Your task to perform on an android device: Clear the cart on walmart. Search for usb-b on walmart, select the first entry, and add it to the cart. Image 0: 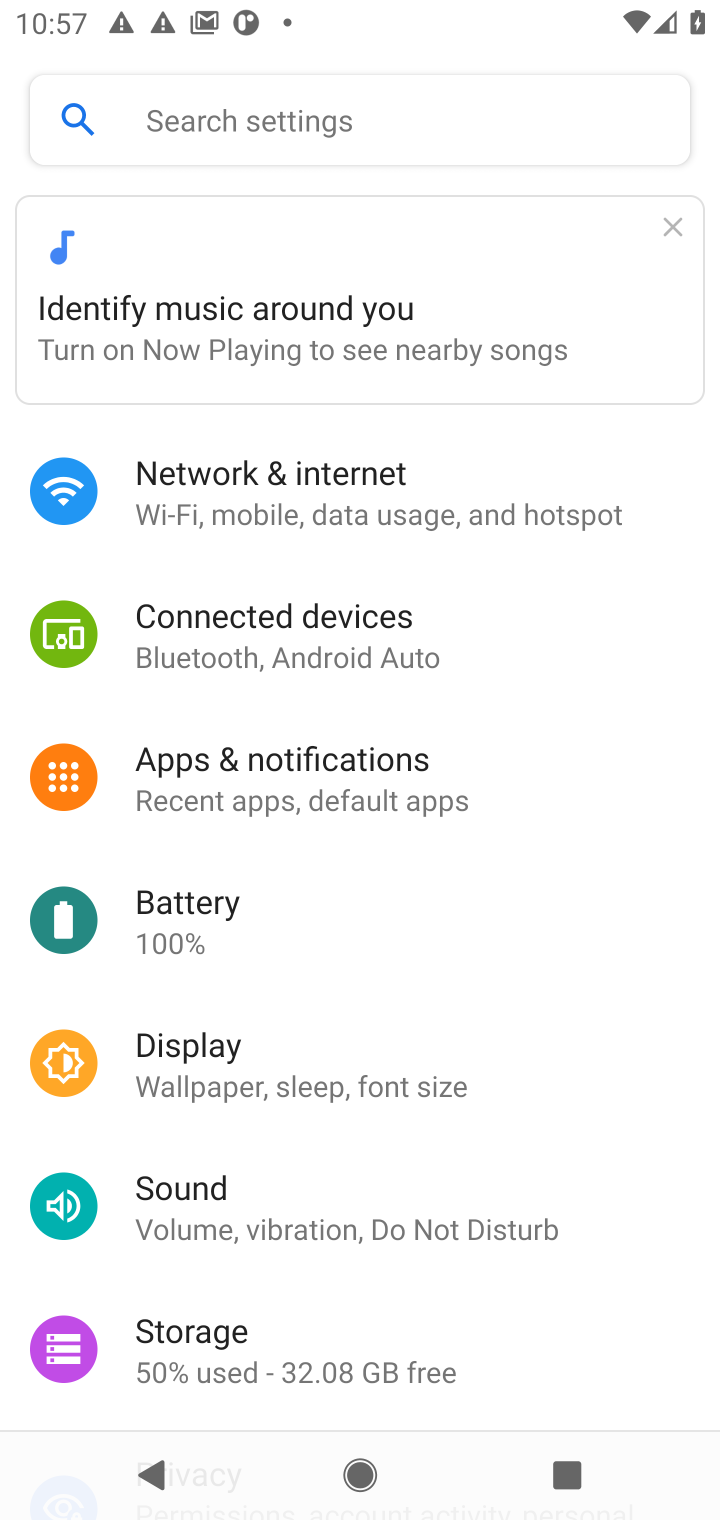
Step 0: press home button
Your task to perform on an android device: Clear the cart on walmart. Search for usb-b on walmart, select the first entry, and add it to the cart. Image 1: 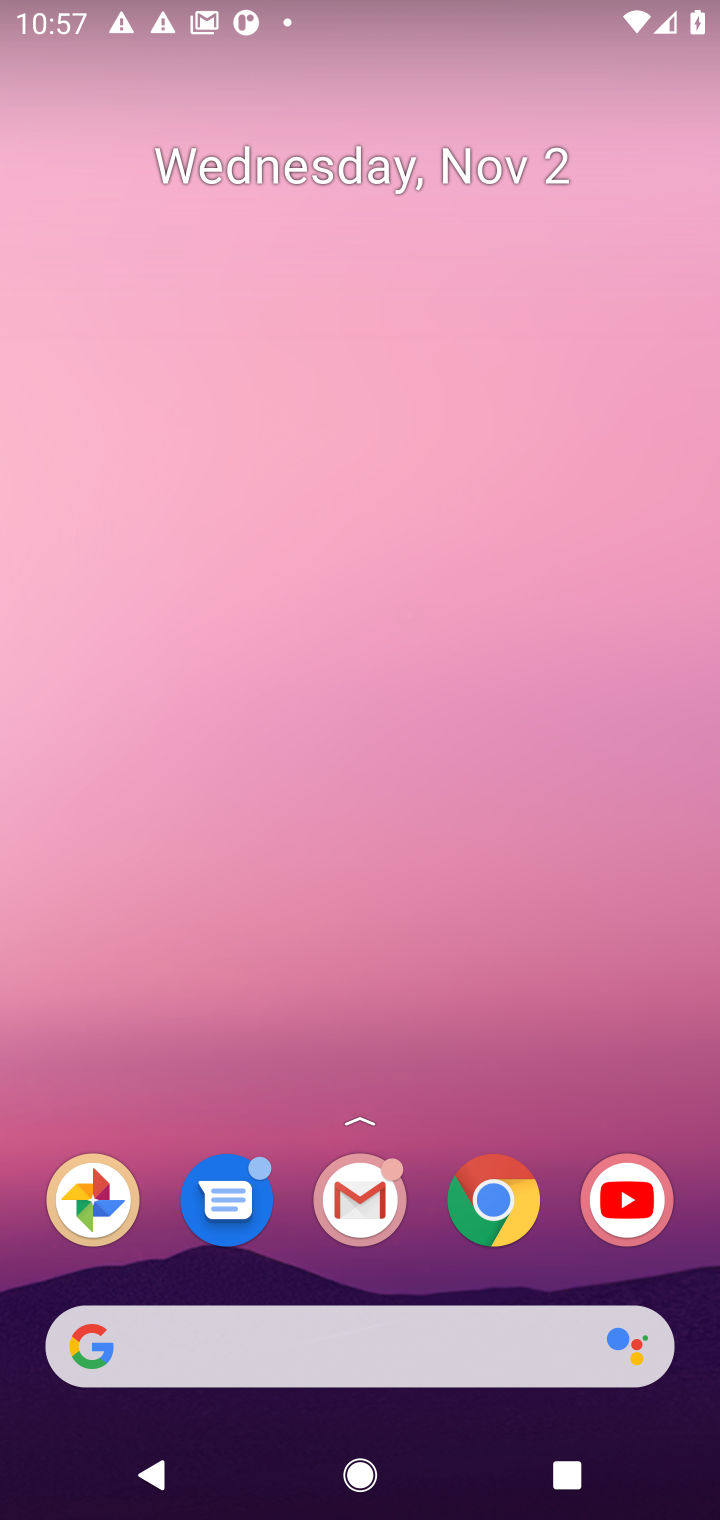
Step 1: click (496, 1179)
Your task to perform on an android device: Clear the cart on walmart. Search for usb-b on walmart, select the first entry, and add it to the cart. Image 2: 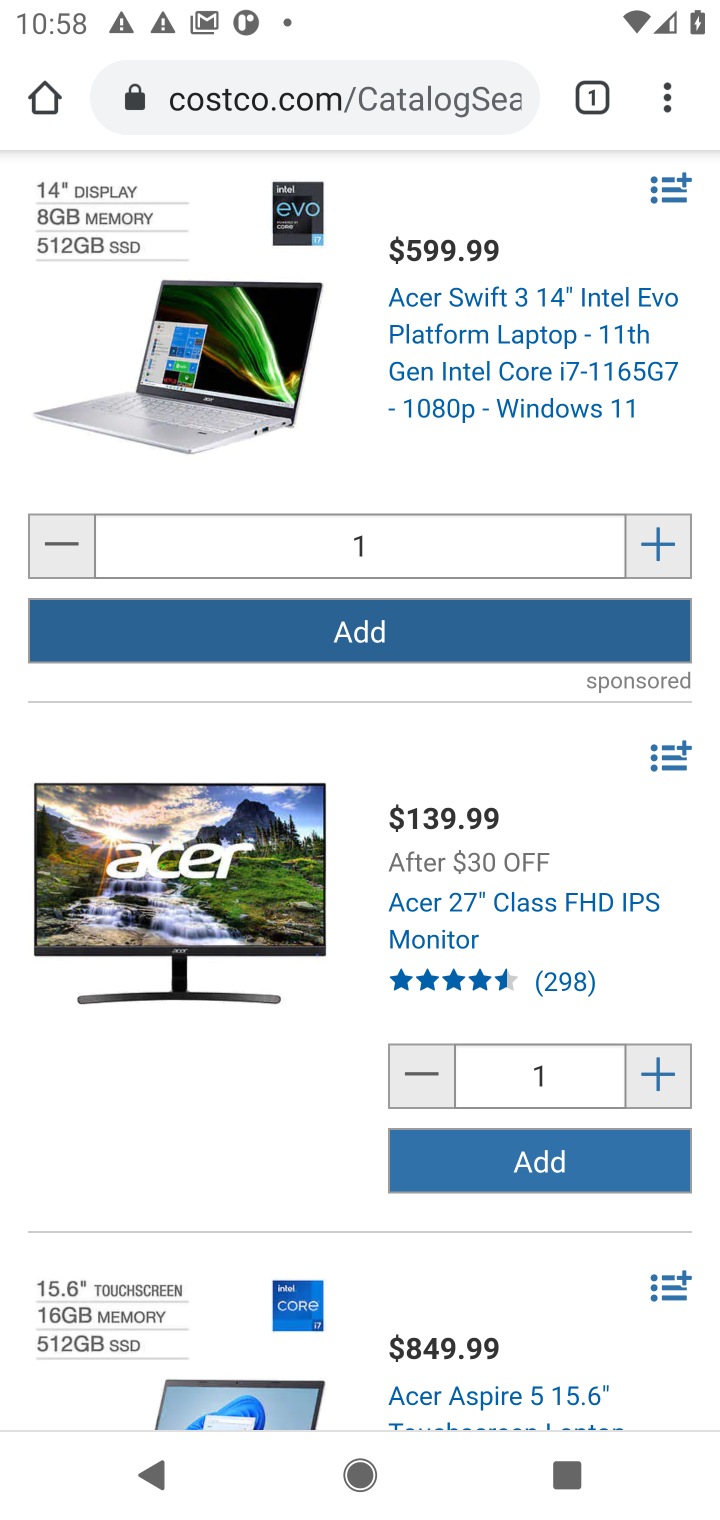
Step 2: click (478, 100)
Your task to perform on an android device: Clear the cart on walmart. Search for usb-b on walmart, select the first entry, and add it to the cart. Image 3: 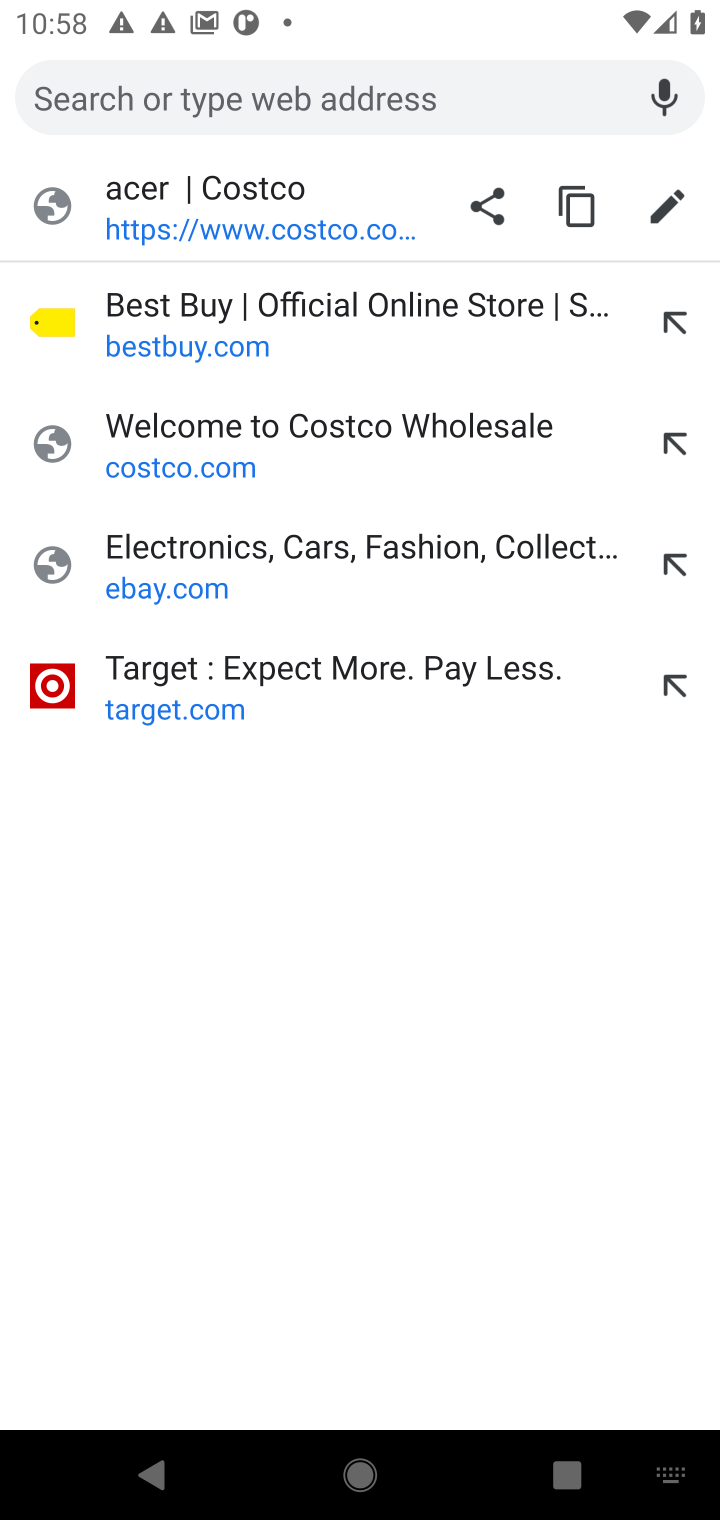
Step 3: type "walmart"
Your task to perform on an android device: Clear the cart on walmart. Search for usb-b on walmart, select the first entry, and add it to the cart. Image 4: 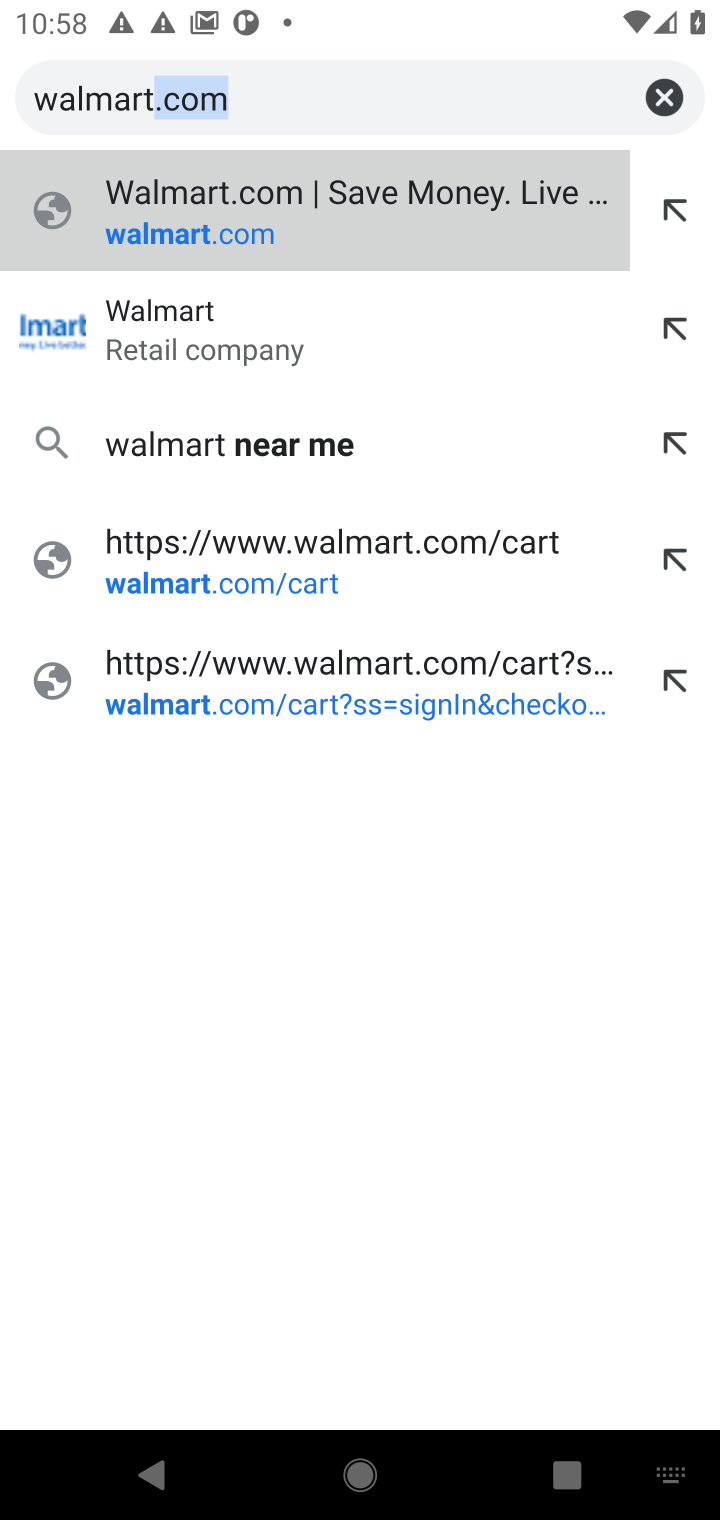
Step 4: press enter
Your task to perform on an android device: Clear the cart on walmart. Search for usb-b on walmart, select the first entry, and add it to the cart. Image 5: 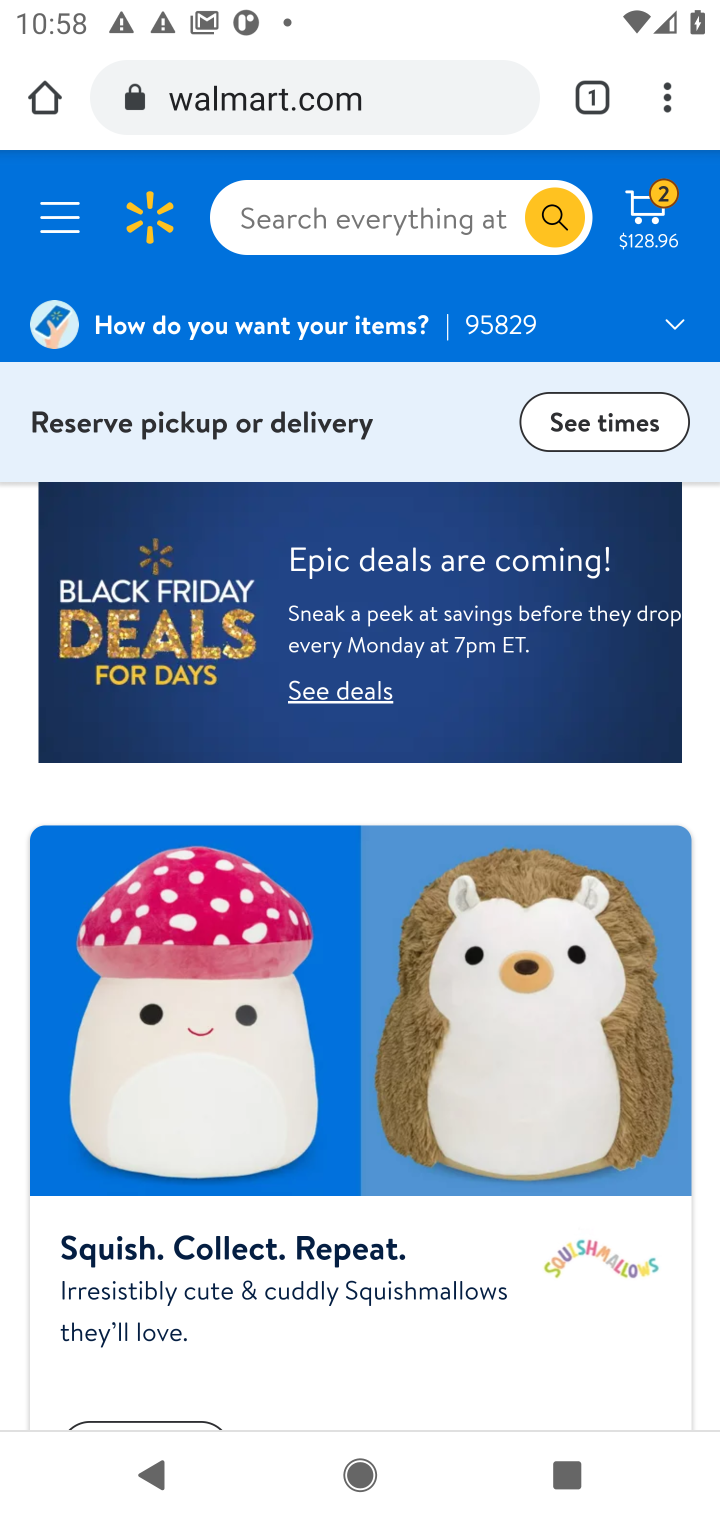
Step 5: click (644, 221)
Your task to perform on an android device: Clear the cart on walmart. Search for usb-b on walmart, select the first entry, and add it to the cart. Image 6: 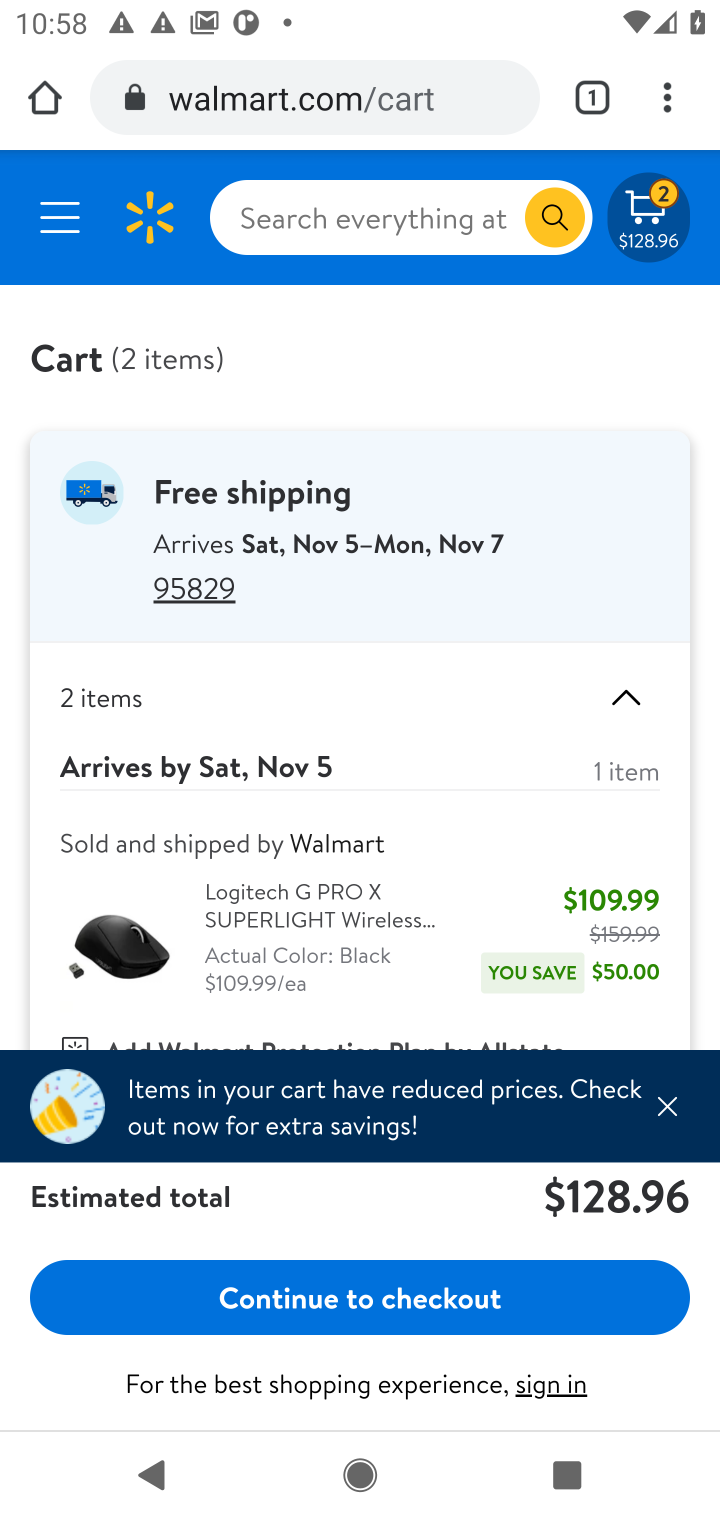
Step 6: drag from (515, 711) to (555, 334)
Your task to perform on an android device: Clear the cart on walmart. Search for usb-b on walmart, select the first entry, and add it to the cart. Image 7: 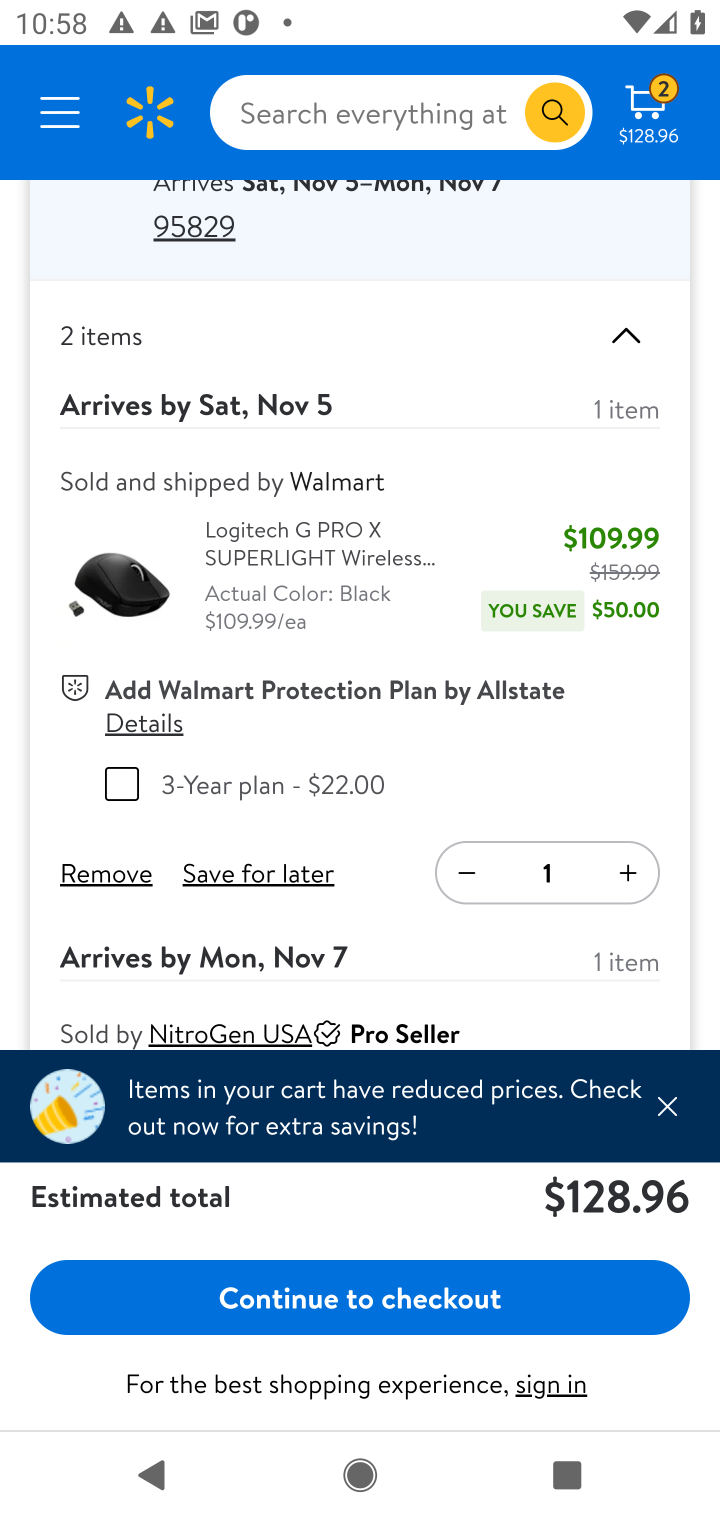
Step 7: click (114, 876)
Your task to perform on an android device: Clear the cart on walmart. Search for usb-b on walmart, select the first entry, and add it to the cart. Image 8: 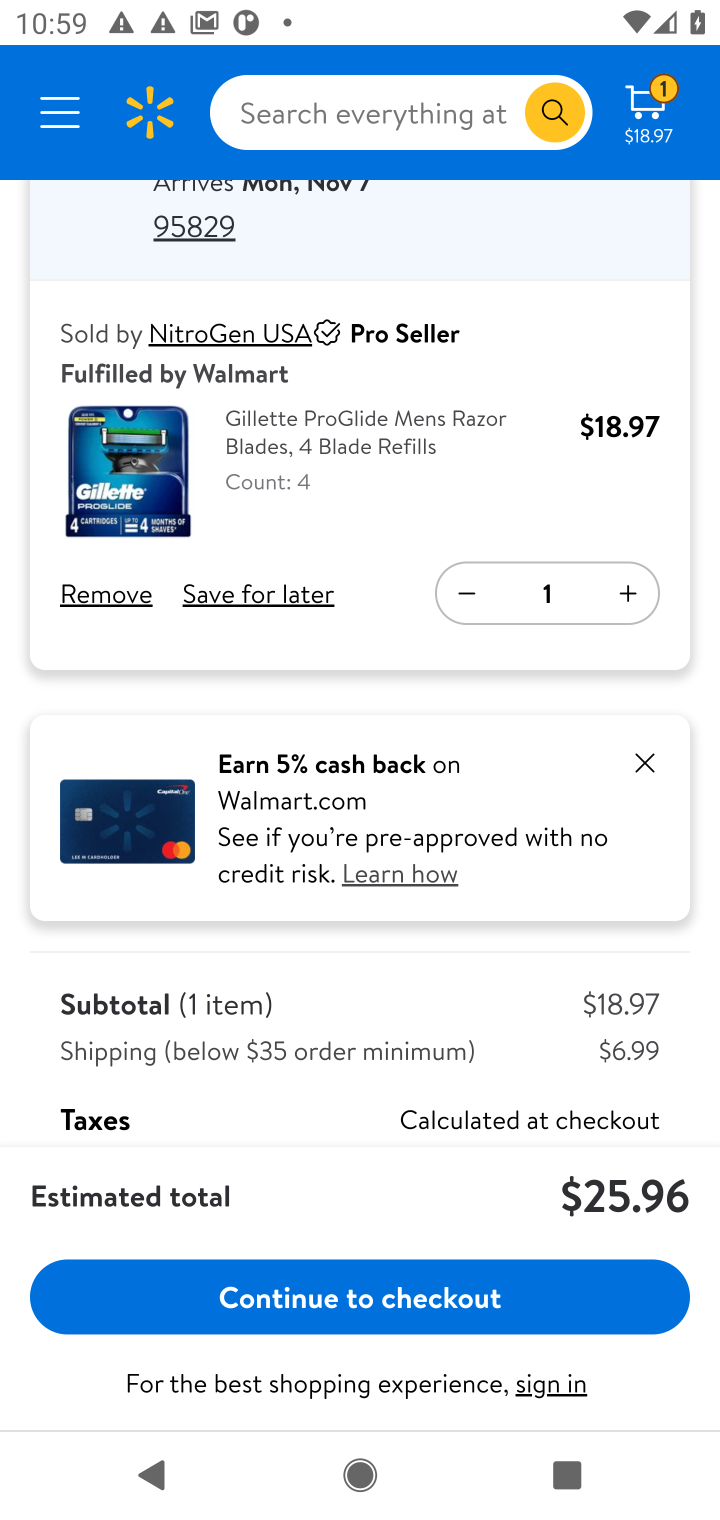
Step 8: click (121, 595)
Your task to perform on an android device: Clear the cart on walmart. Search for usb-b on walmart, select the first entry, and add it to the cart. Image 9: 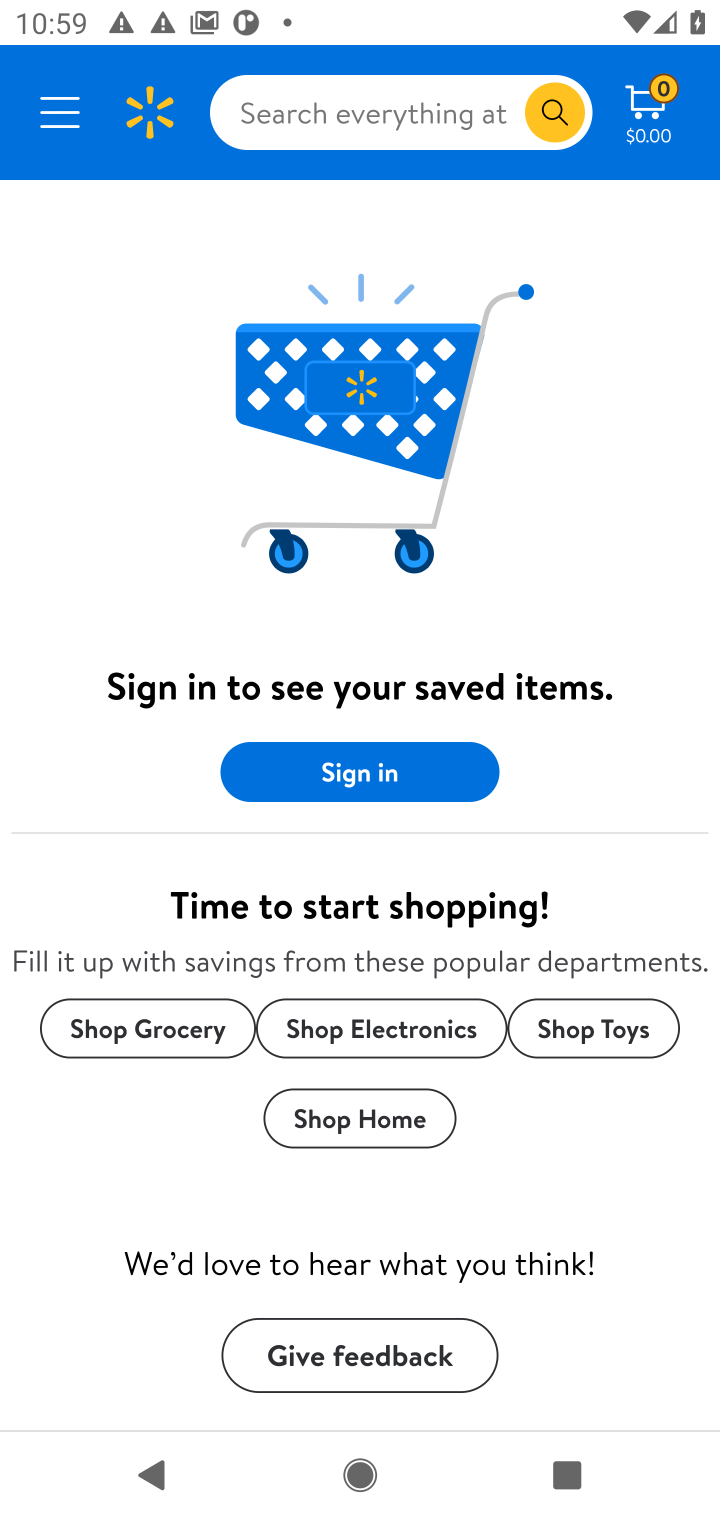
Step 9: click (425, 104)
Your task to perform on an android device: Clear the cart on walmart. Search for usb-b on walmart, select the first entry, and add it to the cart. Image 10: 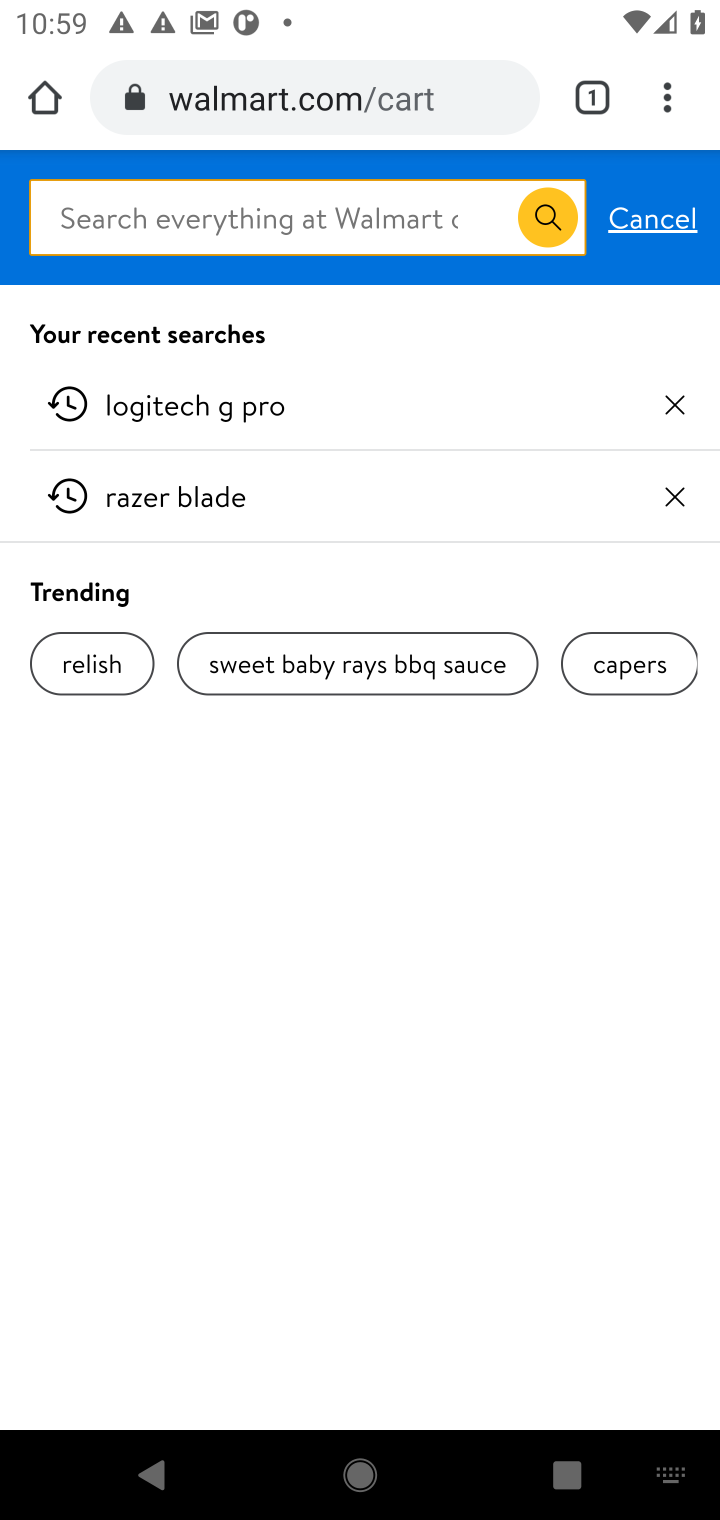
Step 10: press enter
Your task to perform on an android device: Clear the cart on walmart. Search for usb-b on walmart, select the first entry, and add it to the cart. Image 11: 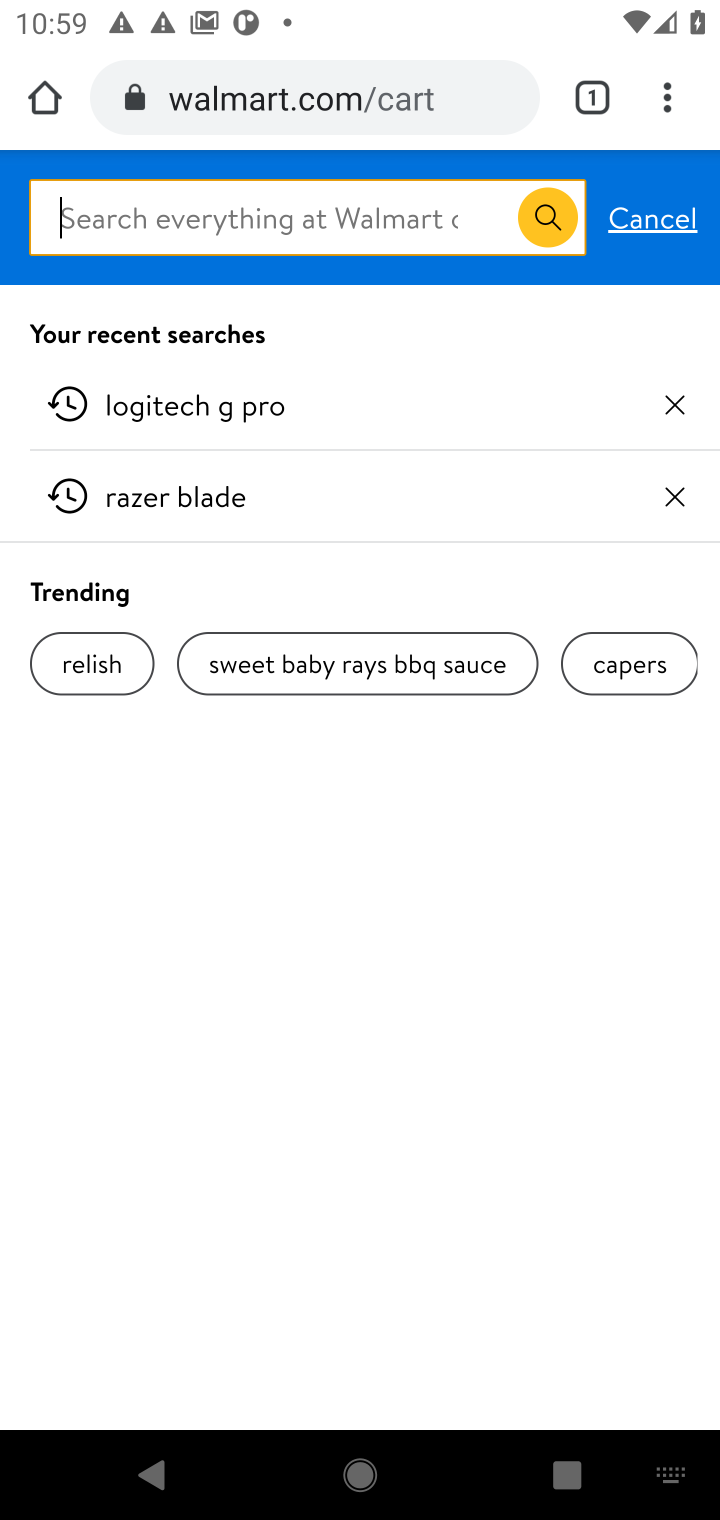
Step 11: type "usb-b"
Your task to perform on an android device: Clear the cart on walmart. Search for usb-b on walmart, select the first entry, and add it to the cart. Image 12: 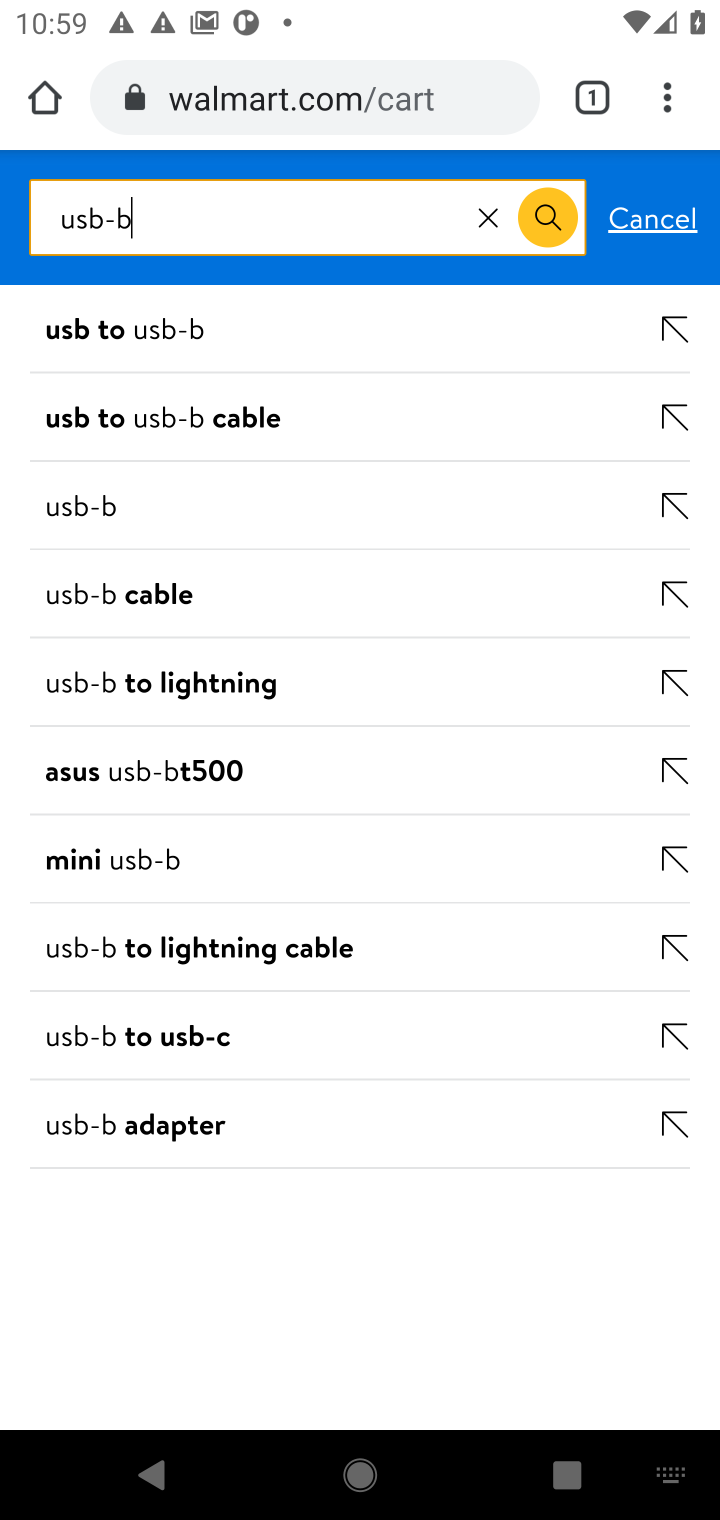
Step 12: click (111, 506)
Your task to perform on an android device: Clear the cart on walmart. Search for usb-b on walmart, select the first entry, and add it to the cart. Image 13: 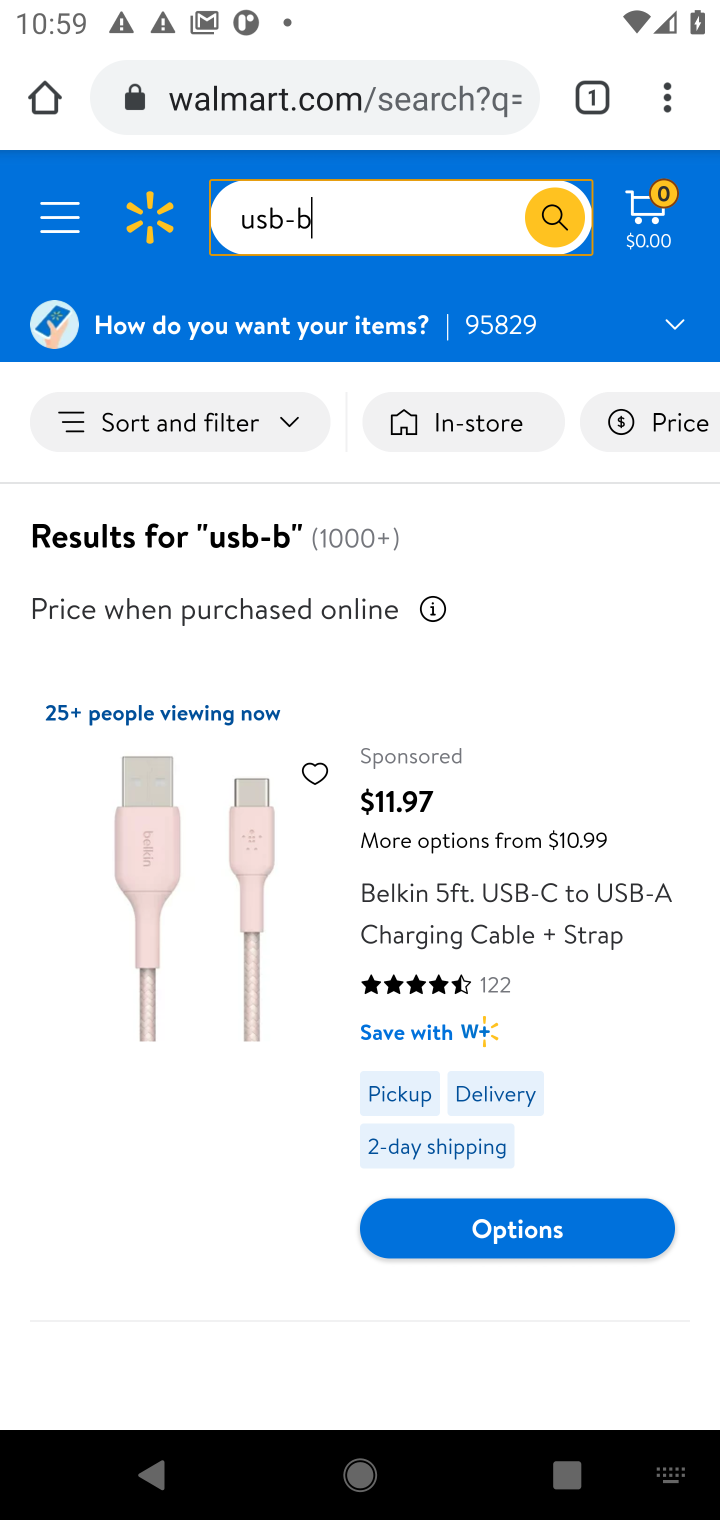
Step 13: drag from (290, 1078) to (334, 635)
Your task to perform on an android device: Clear the cart on walmart. Search for usb-b on walmart, select the first entry, and add it to the cart. Image 14: 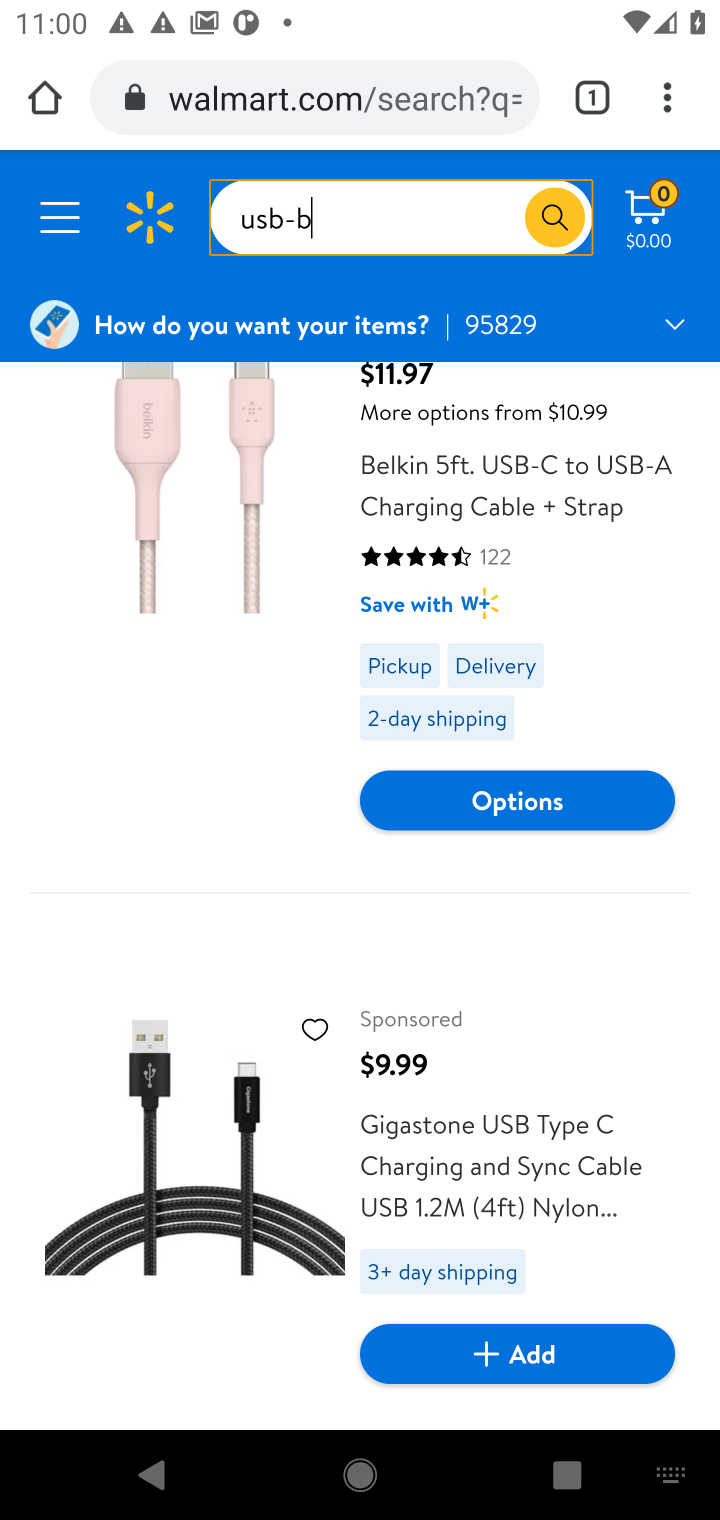
Step 14: drag from (250, 1183) to (300, 543)
Your task to perform on an android device: Clear the cart on walmart. Search for usb-b on walmart, select the first entry, and add it to the cart. Image 15: 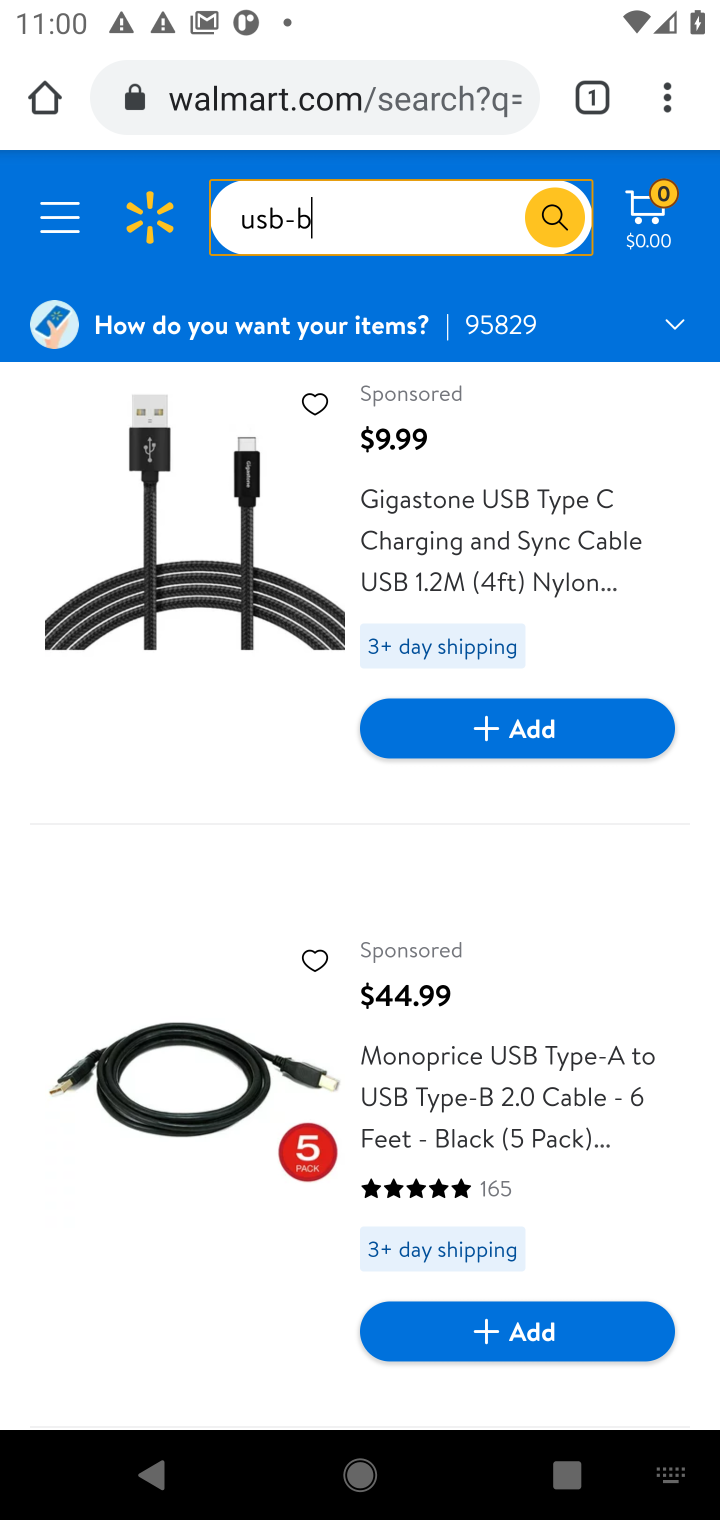
Step 15: drag from (162, 1116) to (236, 476)
Your task to perform on an android device: Clear the cart on walmart. Search for usb-b on walmart, select the first entry, and add it to the cart. Image 16: 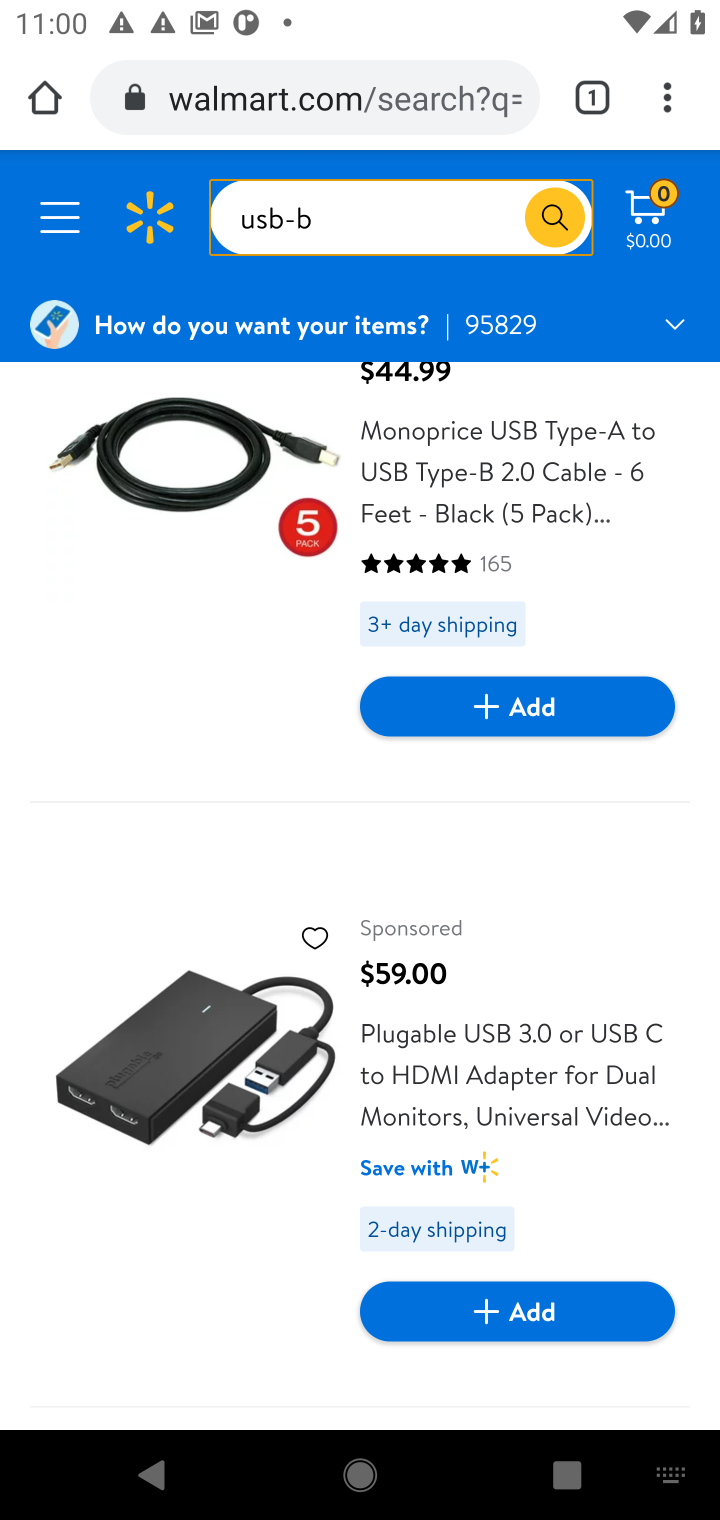
Step 16: drag from (182, 1063) to (280, 524)
Your task to perform on an android device: Clear the cart on walmart. Search for usb-b on walmart, select the first entry, and add it to the cart. Image 17: 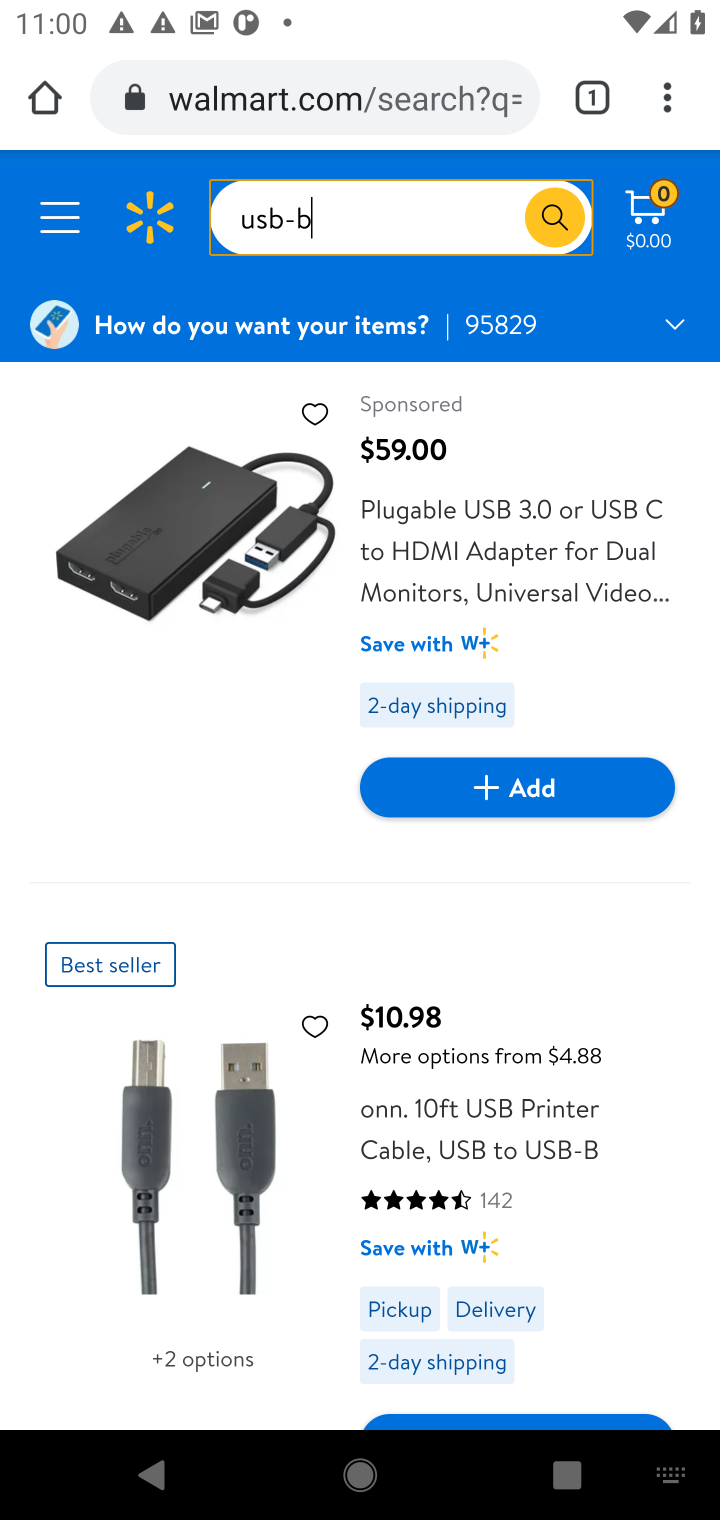
Step 17: click (223, 1158)
Your task to perform on an android device: Clear the cart on walmart. Search for usb-b on walmart, select the first entry, and add it to the cart. Image 18: 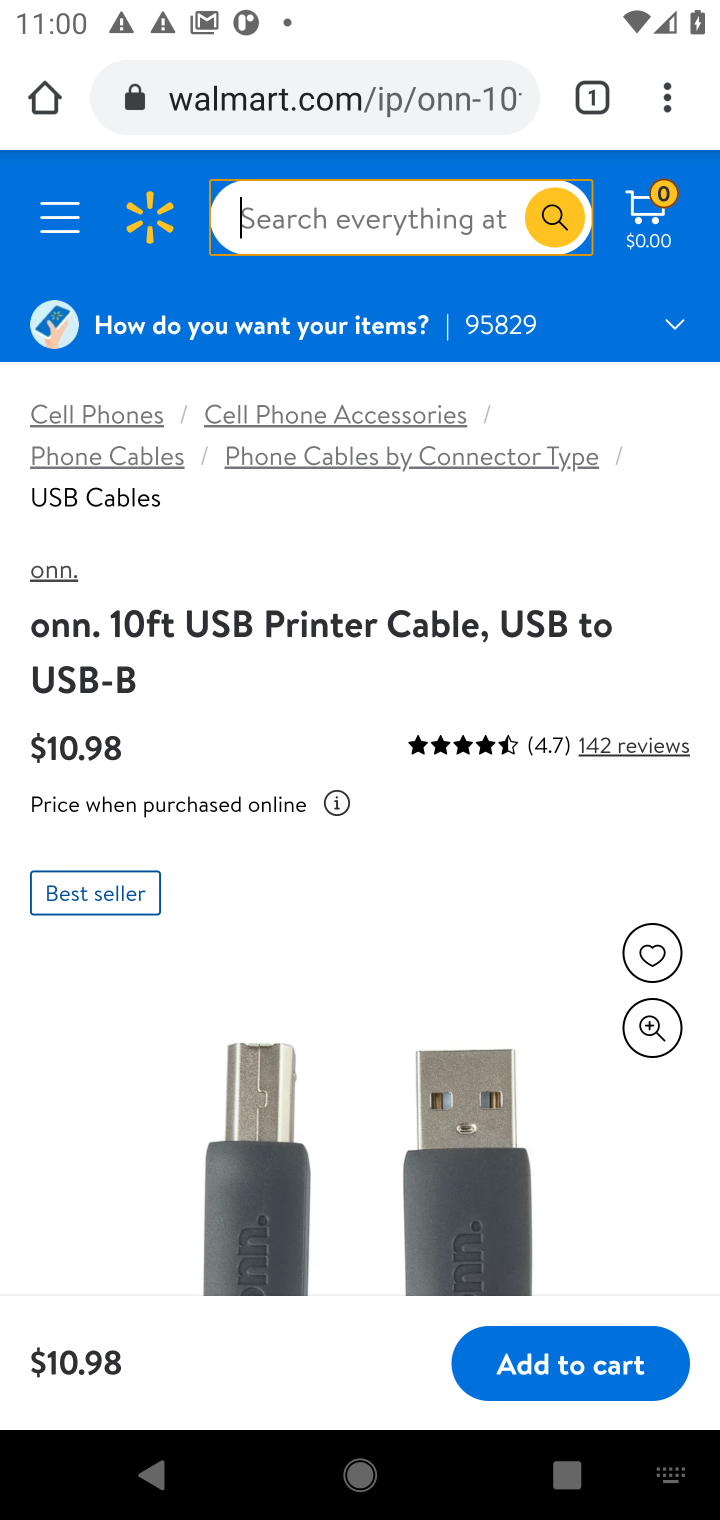
Step 18: click (597, 1360)
Your task to perform on an android device: Clear the cart on walmart. Search for usb-b on walmart, select the first entry, and add it to the cart. Image 19: 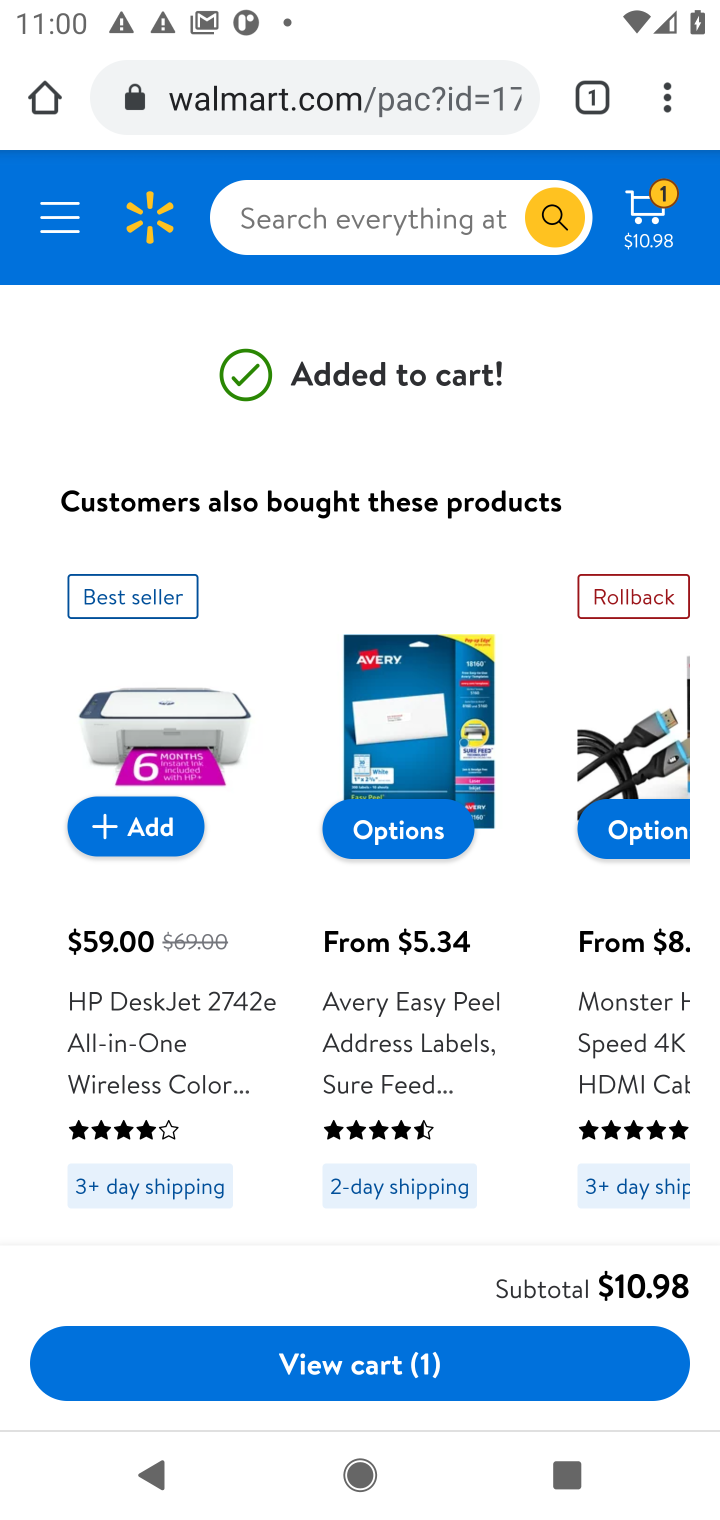
Step 19: task complete